Your task to perform on an android device: Open Google Chrome Image 0: 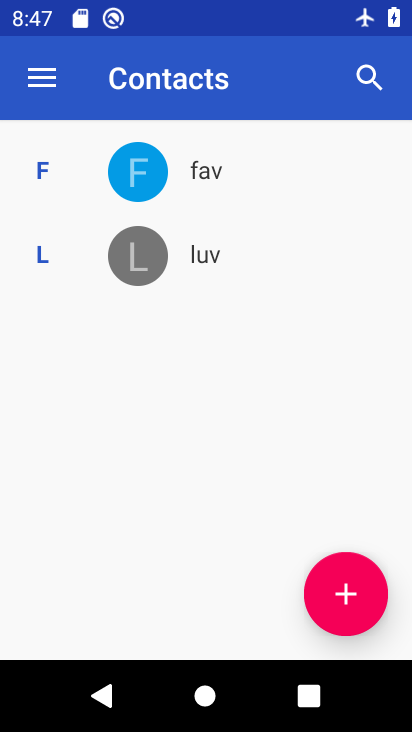
Step 0: press home button
Your task to perform on an android device: Open Google Chrome Image 1: 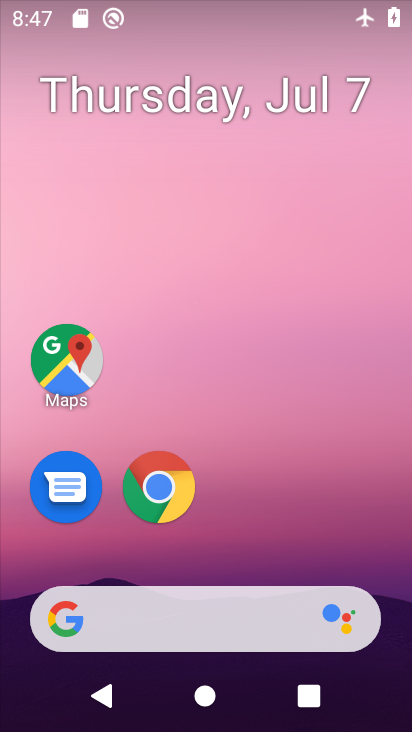
Step 1: drag from (370, 535) to (358, 125)
Your task to perform on an android device: Open Google Chrome Image 2: 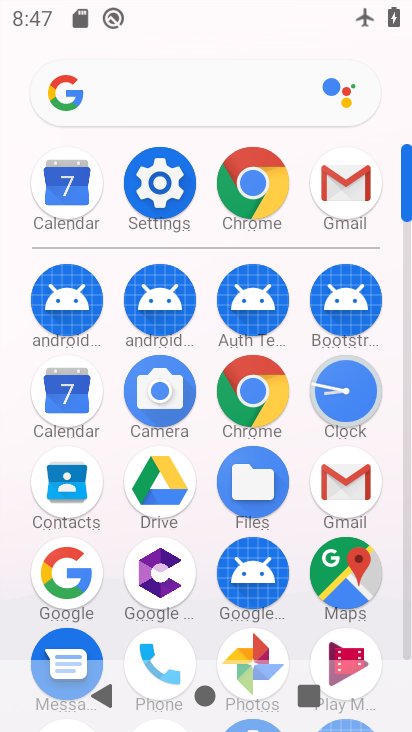
Step 2: click (262, 382)
Your task to perform on an android device: Open Google Chrome Image 3: 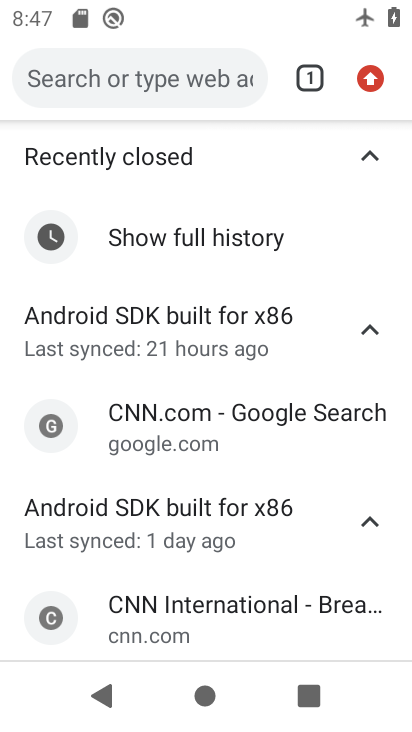
Step 3: task complete